Your task to perform on an android device: open sync settings in chrome Image 0: 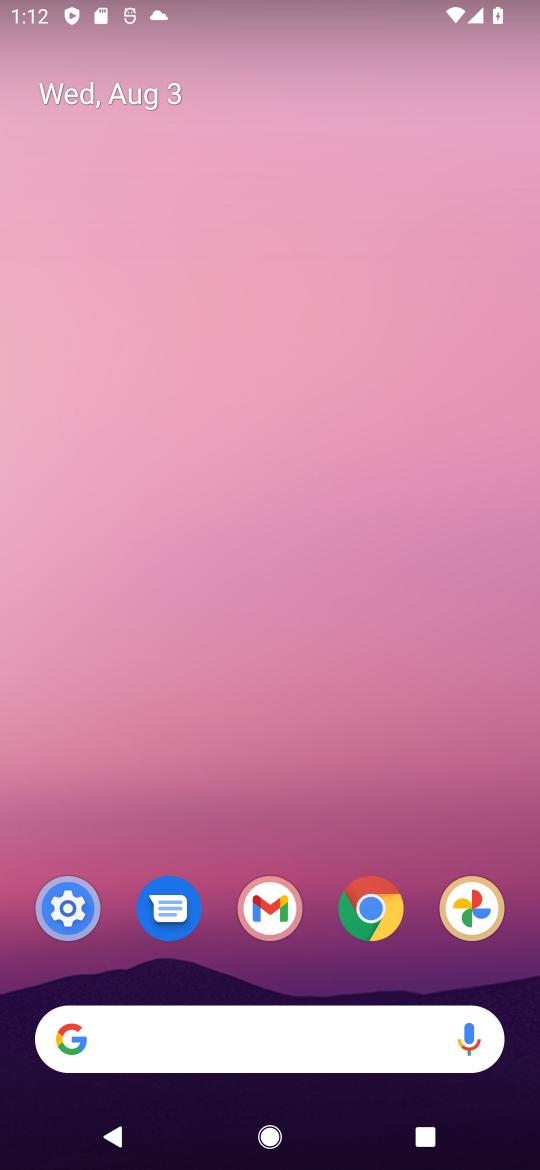
Step 0: click (374, 933)
Your task to perform on an android device: open sync settings in chrome Image 1: 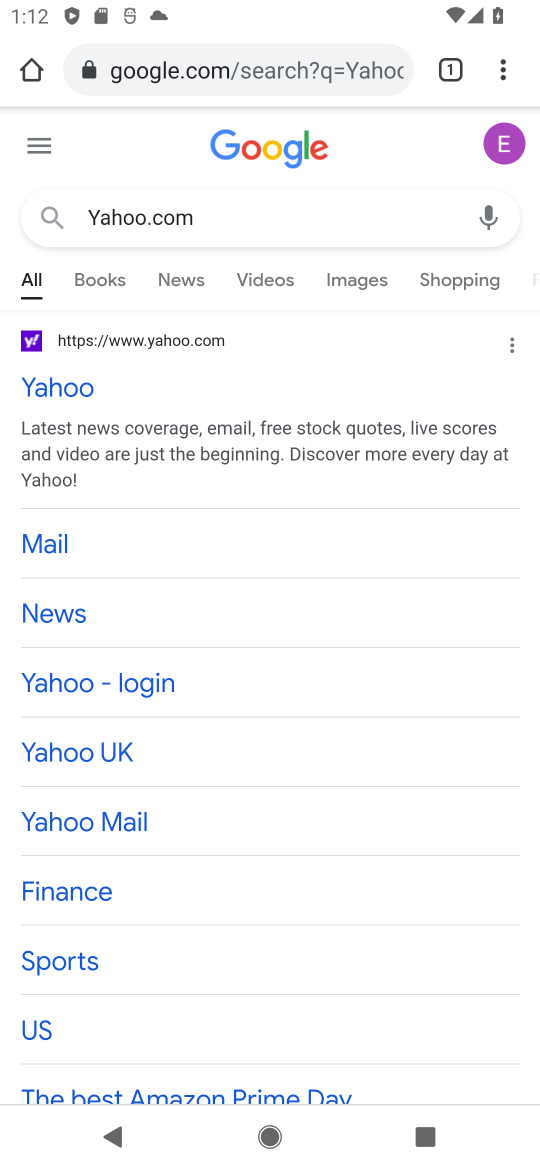
Step 1: click (498, 71)
Your task to perform on an android device: open sync settings in chrome Image 2: 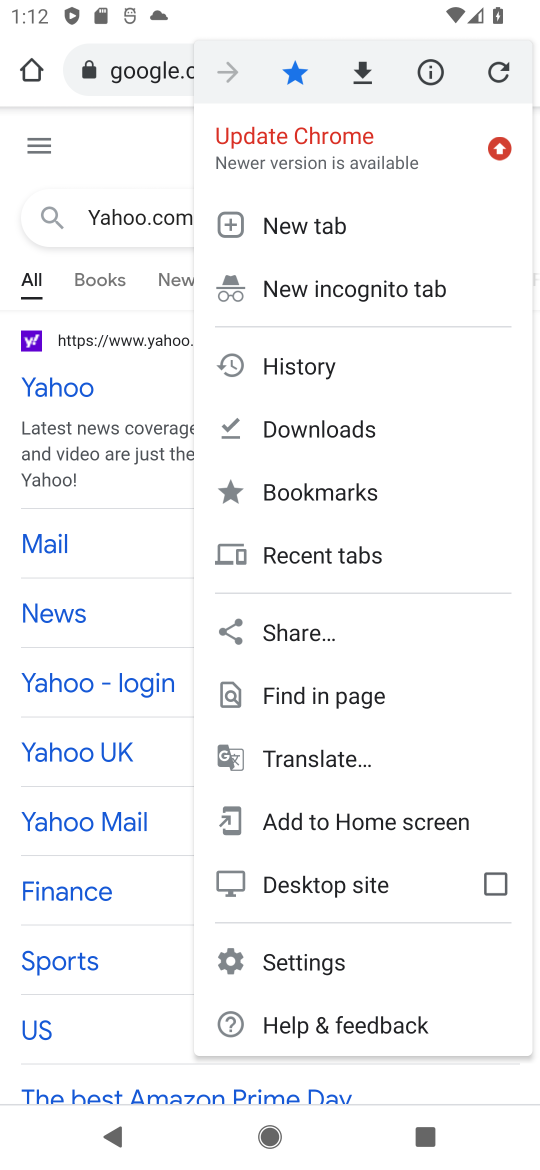
Step 2: click (295, 959)
Your task to perform on an android device: open sync settings in chrome Image 3: 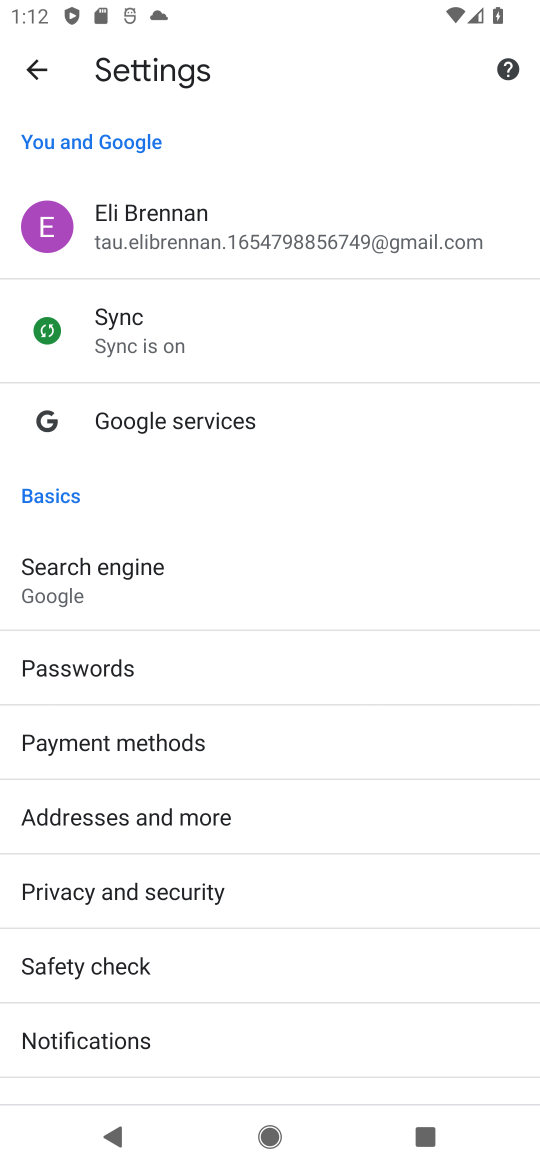
Step 3: click (155, 350)
Your task to perform on an android device: open sync settings in chrome Image 4: 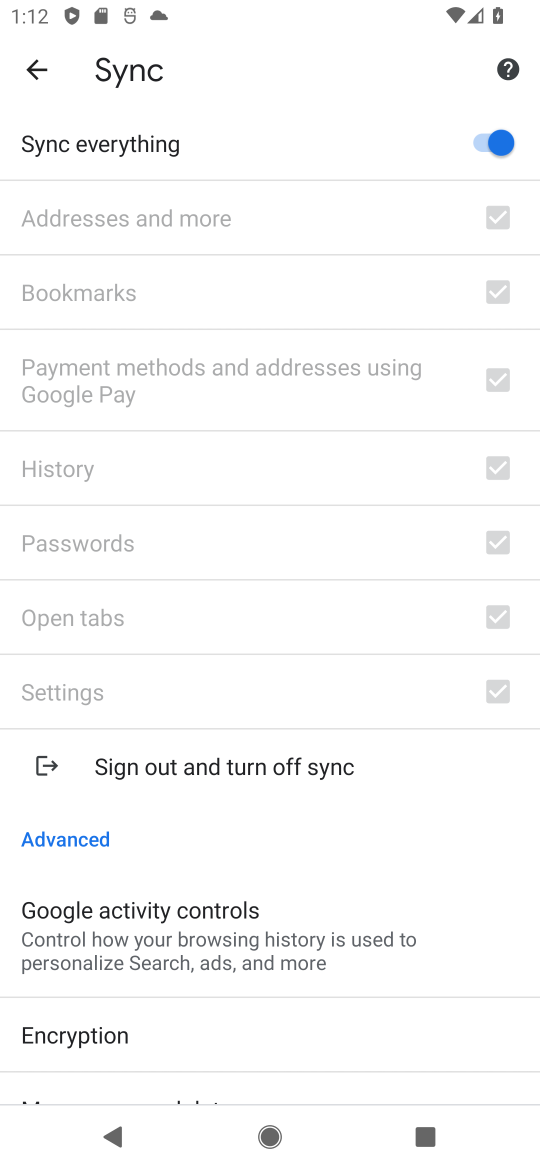
Step 4: task complete